Your task to perform on an android device: open a new tab in the chrome app Image 0: 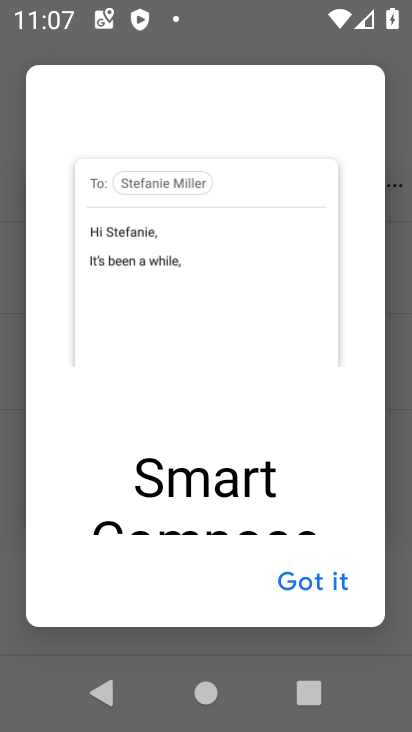
Step 0: press home button
Your task to perform on an android device: open a new tab in the chrome app Image 1: 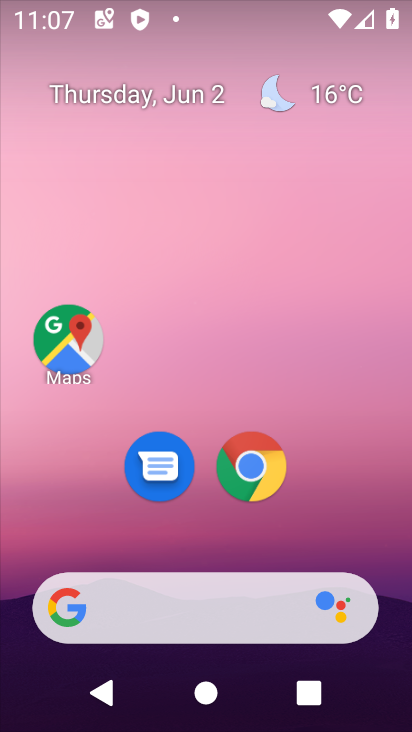
Step 1: click (251, 470)
Your task to perform on an android device: open a new tab in the chrome app Image 2: 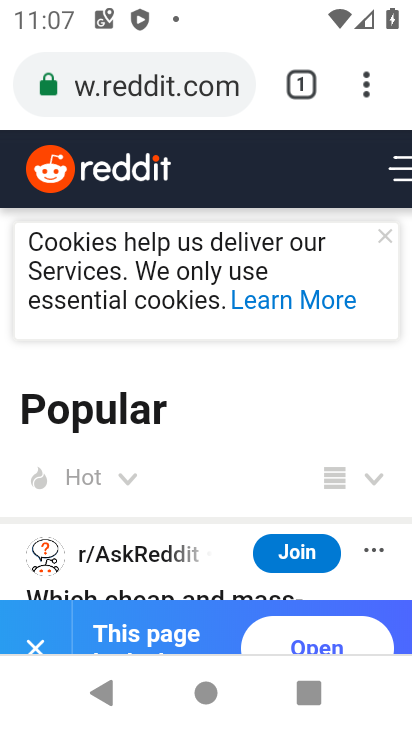
Step 2: click (311, 90)
Your task to perform on an android device: open a new tab in the chrome app Image 3: 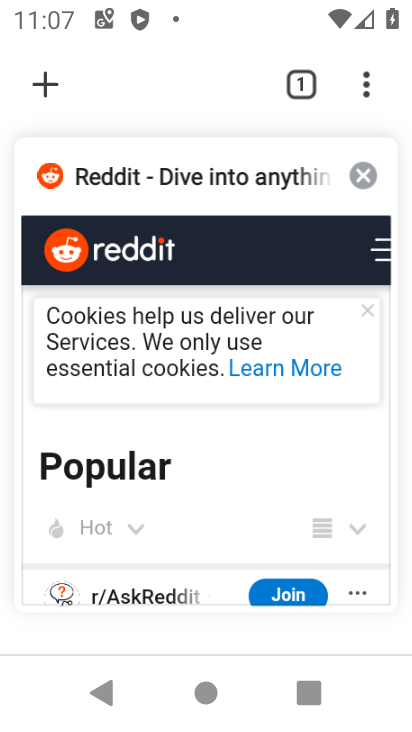
Step 3: click (37, 89)
Your task to perform on an android device: open a new tab in the chrome app Image 4: 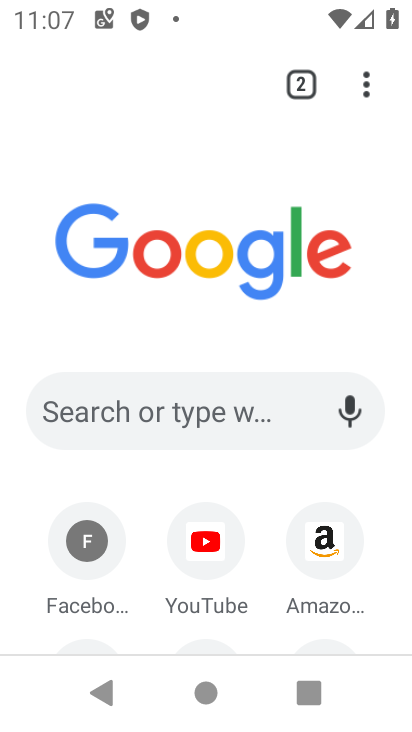
Step 4: task complete